Your task to perform on an android device: Go to wifi settings Image 0: 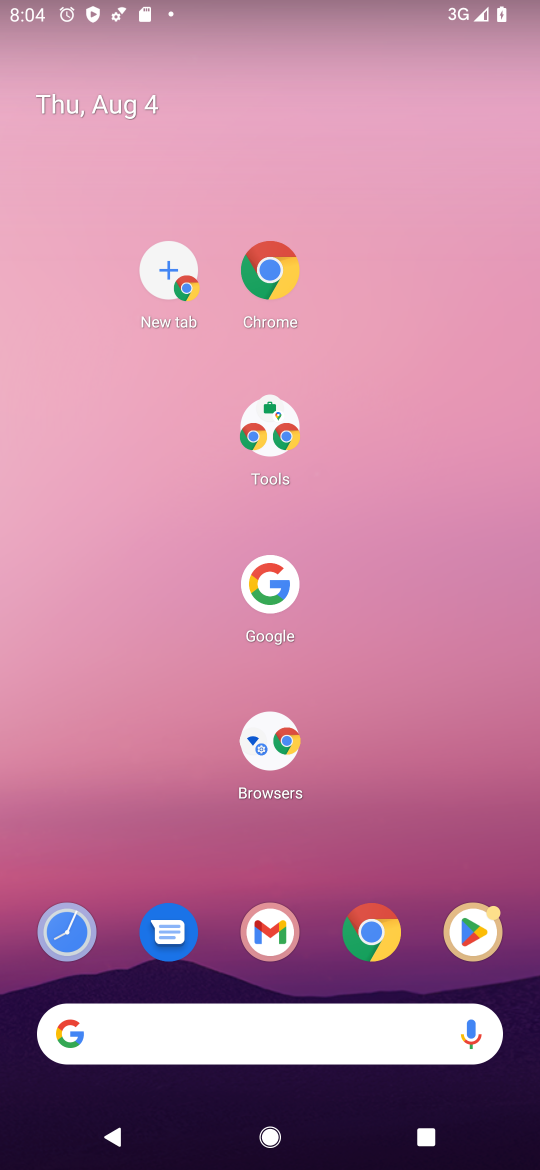
Step 0: drag from (391, 1016) to (228, 49)
Your task to perform on an android device: Go to wifi settings Image 1: 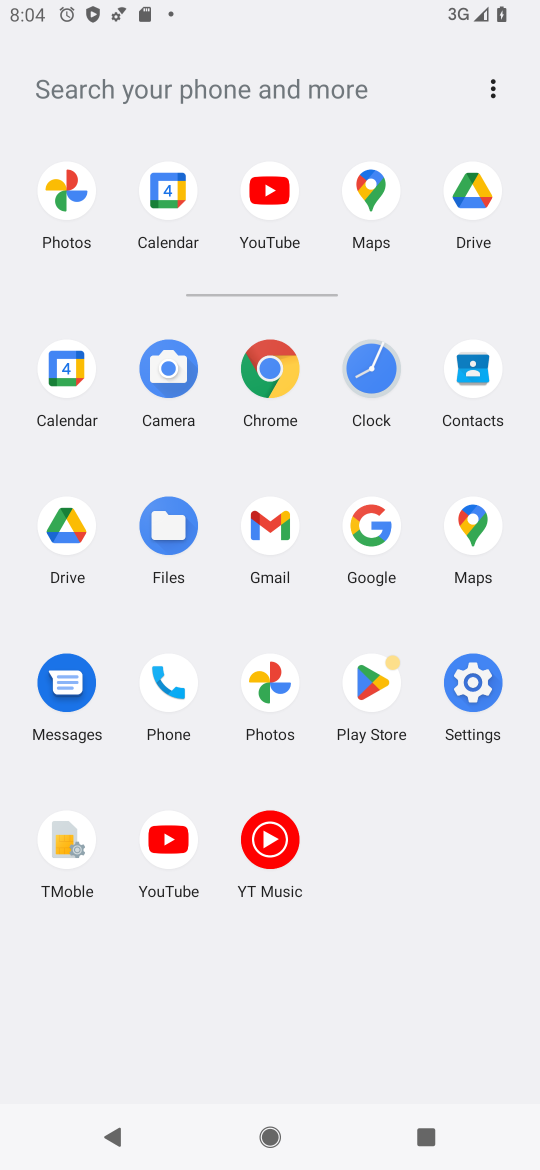
Step 1: click (487, 692)
Your task to perform on an android device: Go to wifi settings Image 2: 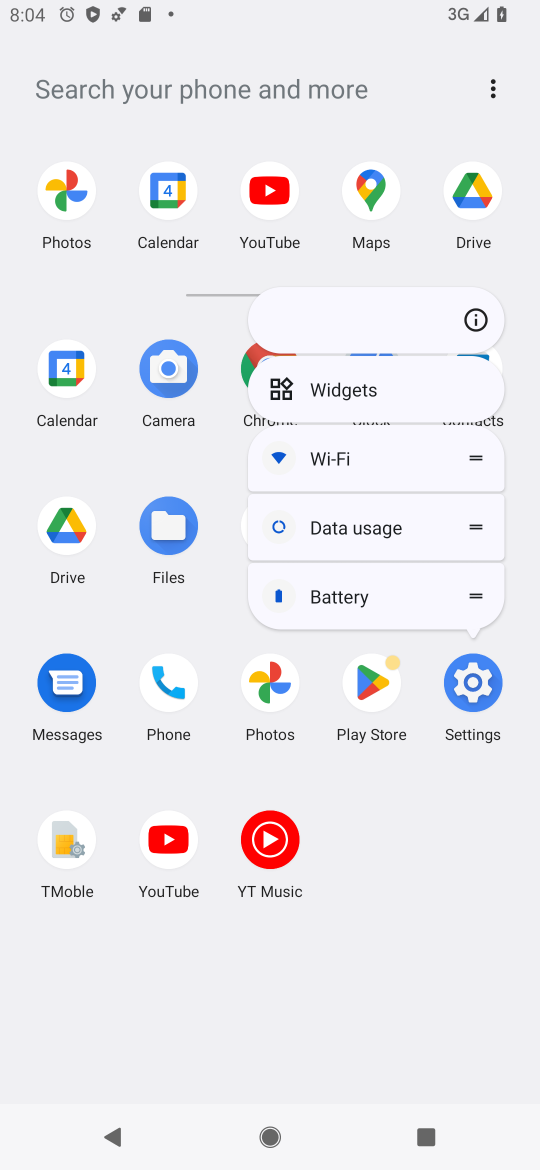
Step 2: click (465, 679)
Your task to perform on an android device: Go to wifi settings Image 3: 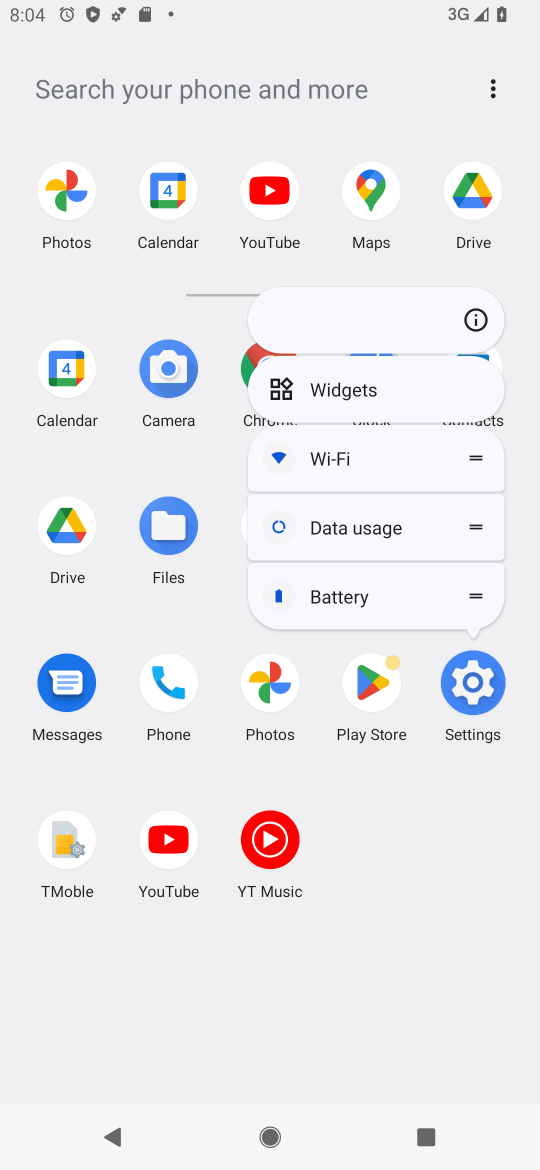
Step 3: click (347, 469)
Your task to perform on an android device: Go to wifi settings Image 4: 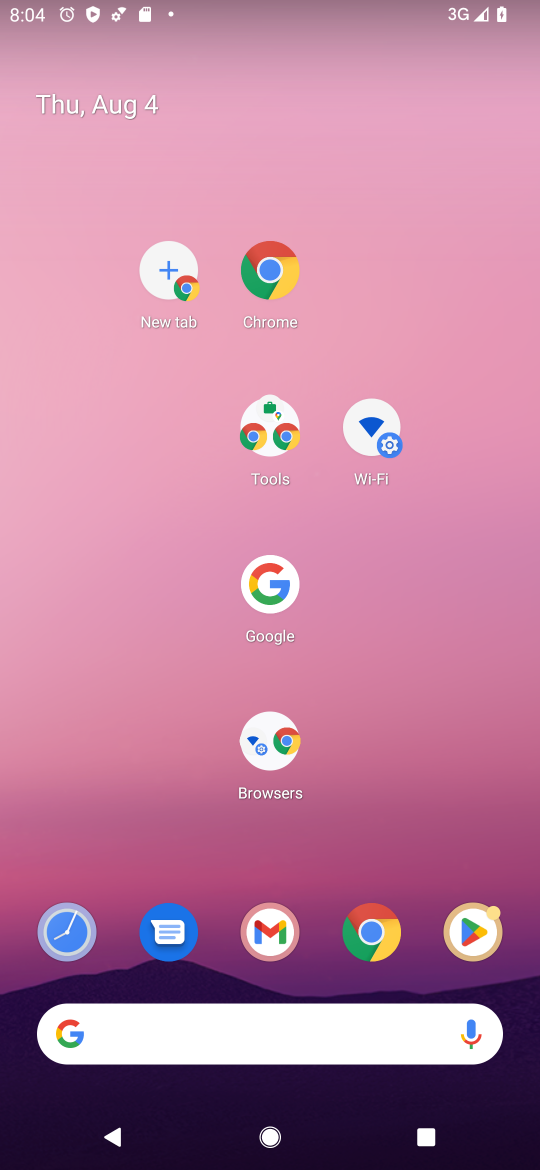
Step 4: drag from (305, 515) to (280, 236)
Your task to perform on an android device: Go to wifi settings Image 5: 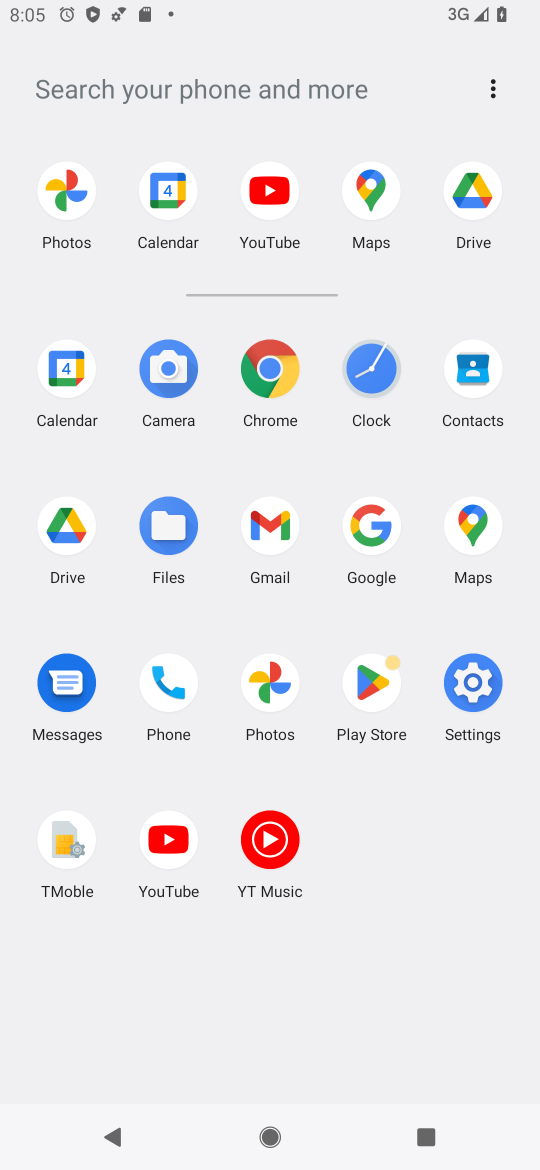
Step 5: click (467, 687)
Your task to perform on an android device: Go to wifi settings Image 6: 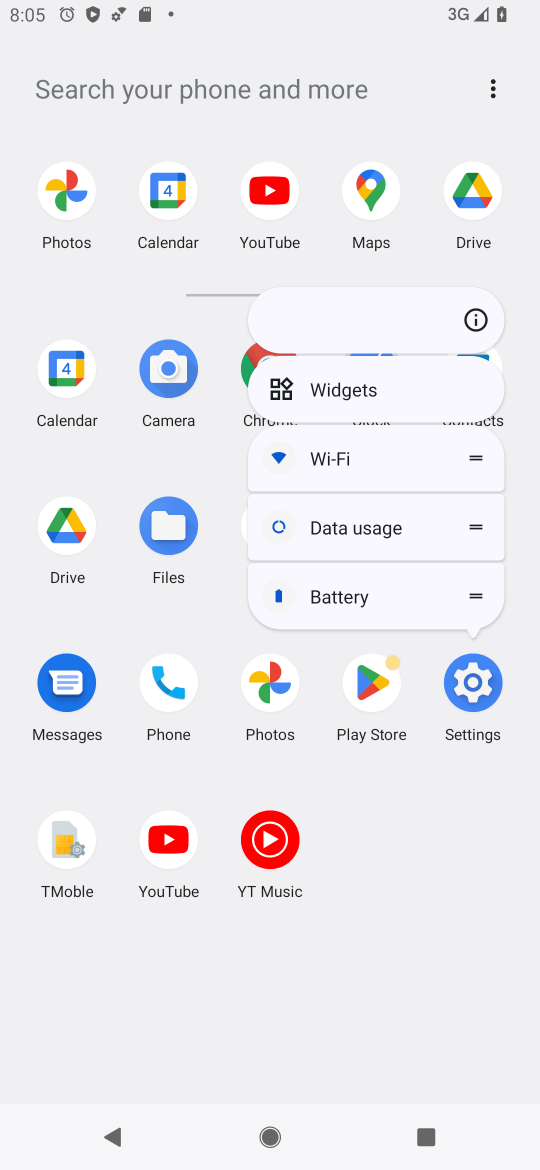
Step 6: click (472, 694)
Your task to perform on an android device: Go to wifi settings Image 7: 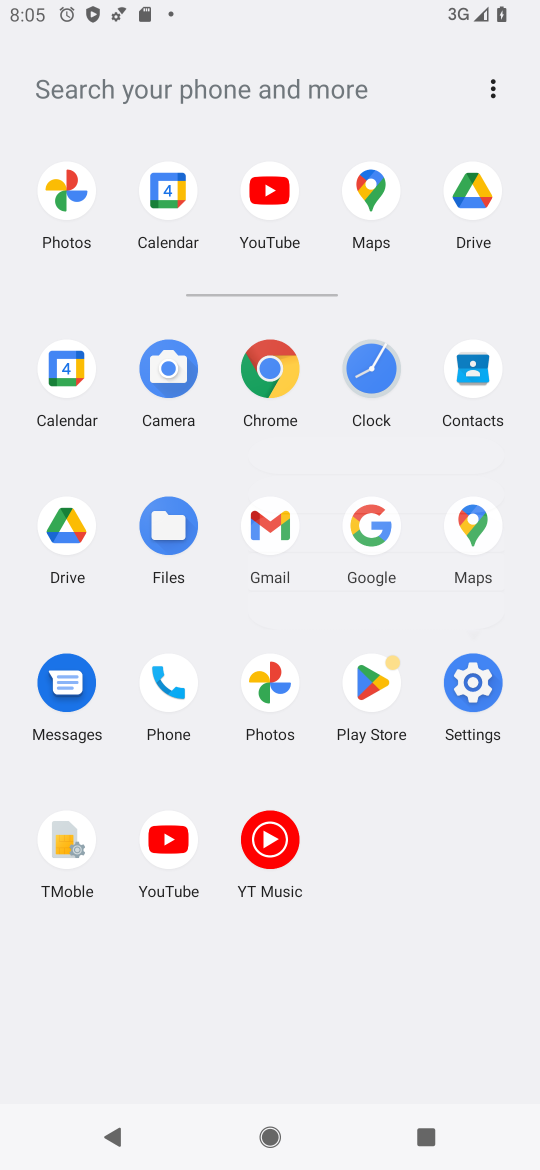
Step 7: drag from (360, 446) to (468, 702)
Your task to perform on an android device: Go to wifi settings Image 8: 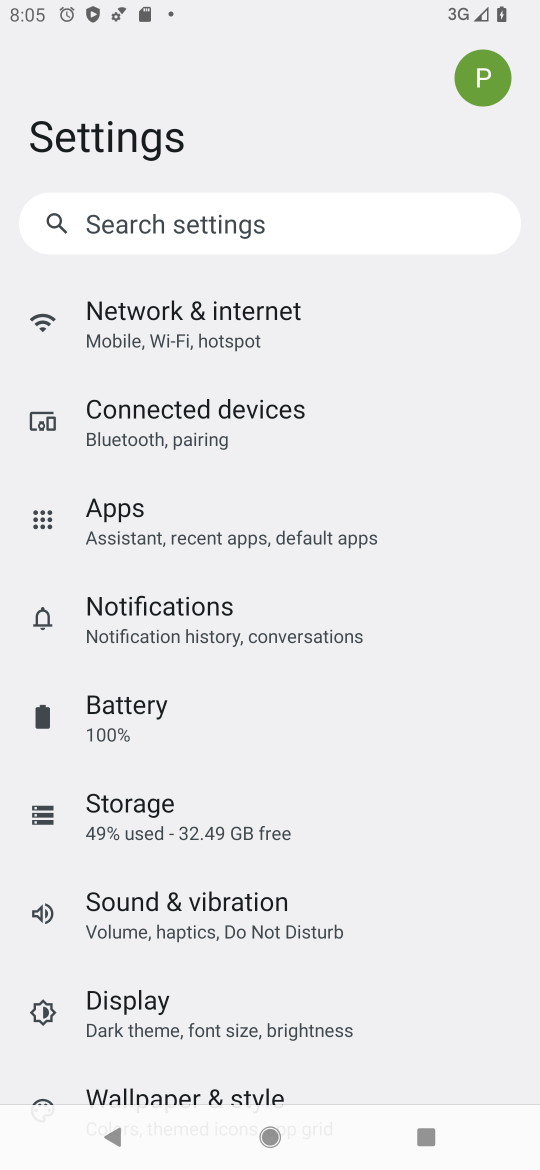
Step 8: click (204, 339)
Your task to perform on an android device: Go to wifi settings Image 9: 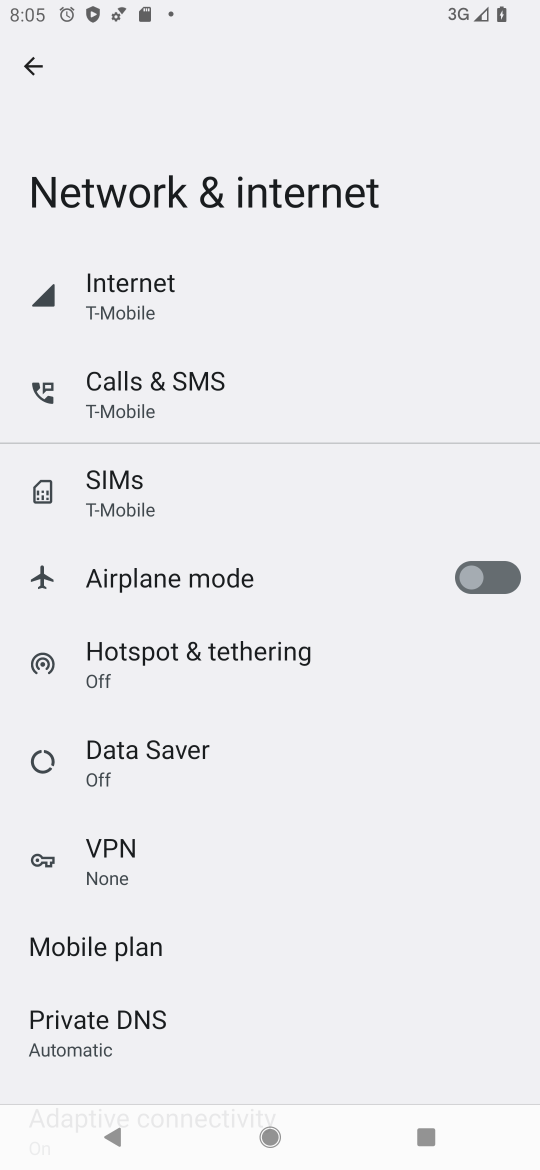
Step 9: click (129, 302)
Your task to perform on an android device: Go to wifi settings Image 10: 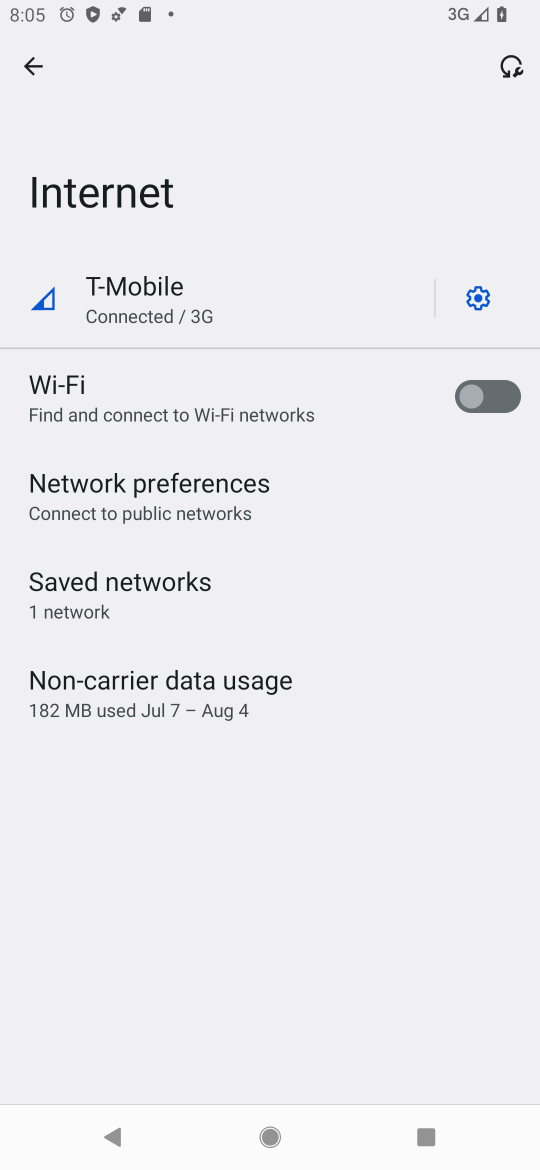
Step 10: task complete